Your task to perform on an android device: open a bookmark in the chrome app Image 0: 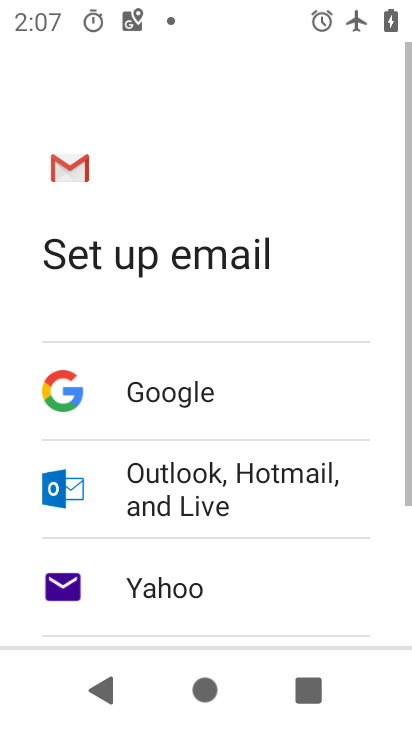
Step 0: press home button
Your task to perform on an android device: open a bookmark in the chrome app Image 1: 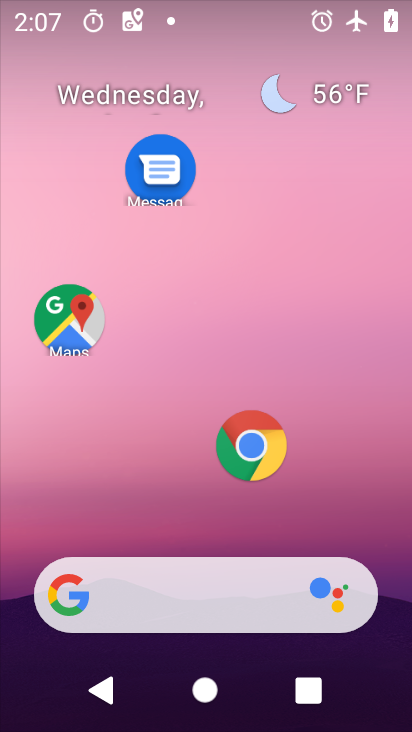
Step 1: drag from (130, 508) to (246, 59)
Your task to perform on an android device: open a bookmark in the chrome app Image 2: 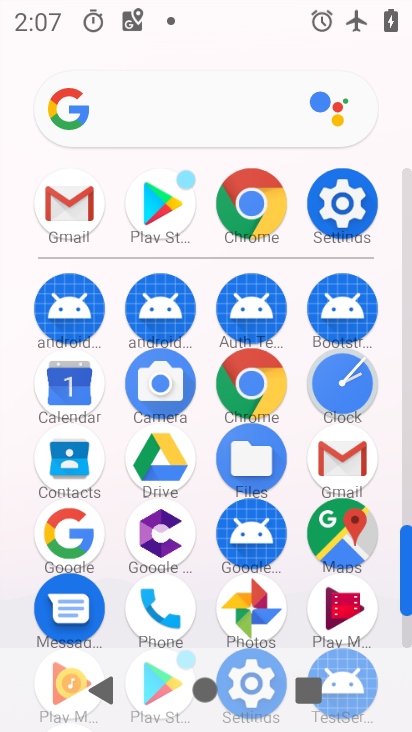
Step 2: click (249, 397)
Your task to perform on an android device: open a bookmark in the chrome app Image 3: 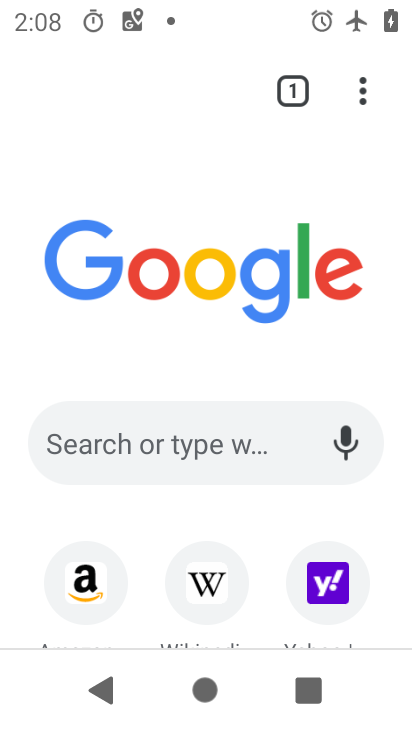
Step 3: click (361, 103)
Your task to perform on an android device: open a bookmark in the chrome app Image 4: 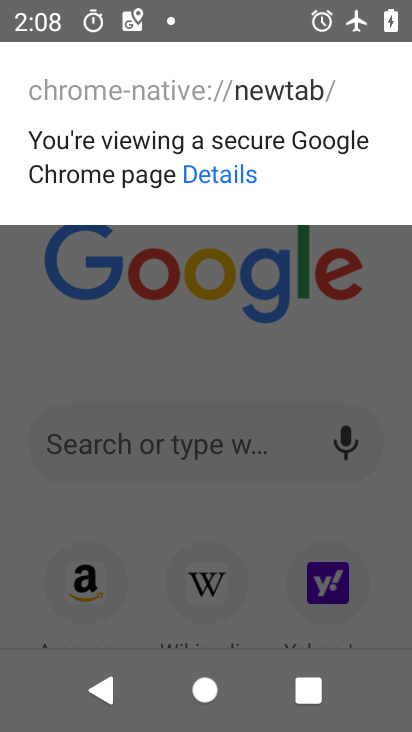
Step 4: click (353, 320)
Your task to perform on an android device: open a bookmark in the chrome app Image 5: 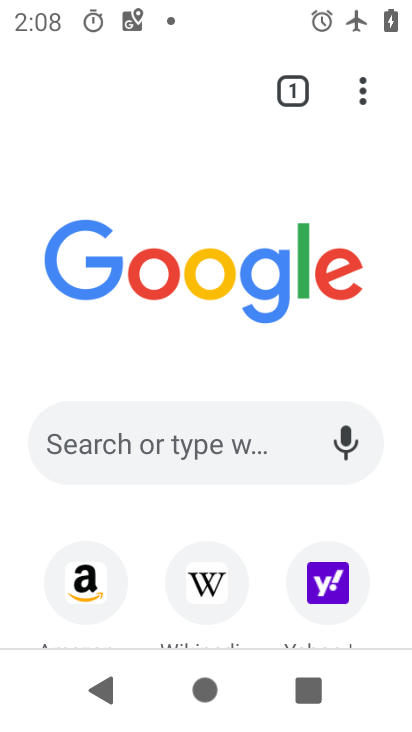
Step 5: click (364, 89)
Your task to perform on an android device: open a bookmark in the chrome app Image 6: 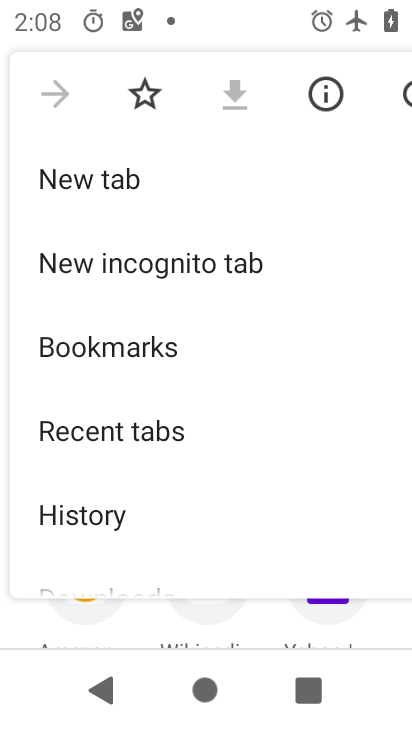
Step 6: click (183, 364)
Your task to perform on an android device: open a bookmark in the chrome app Image 7: 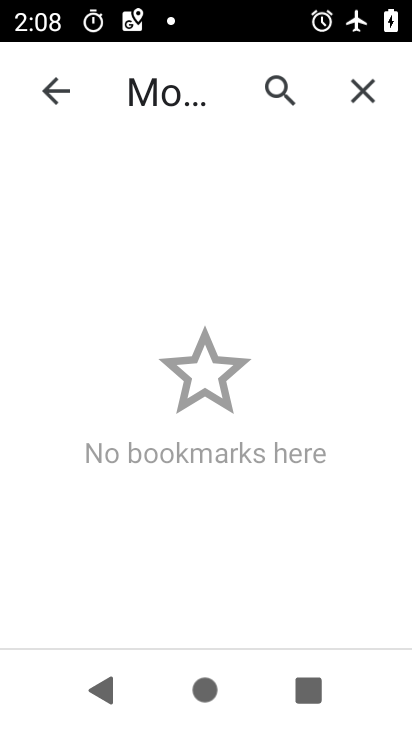
Step 7: task complete